Your task to perform on an android device: turn on notifications settings in the gmail app Image 0: 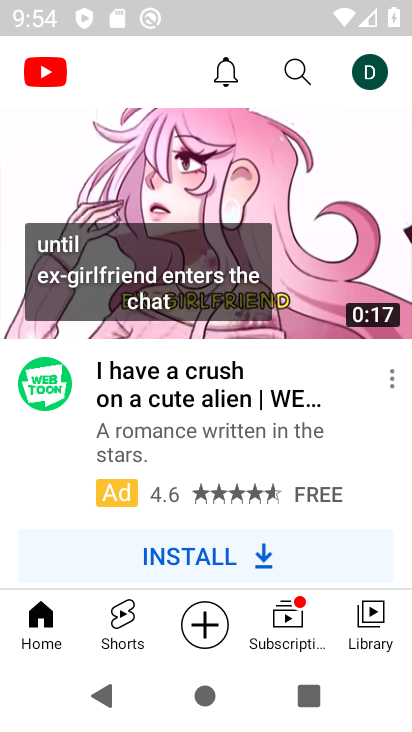
Step 0: press home button
Your task to perform on an android device: turn on notifications settings in the gmail app Image 1: 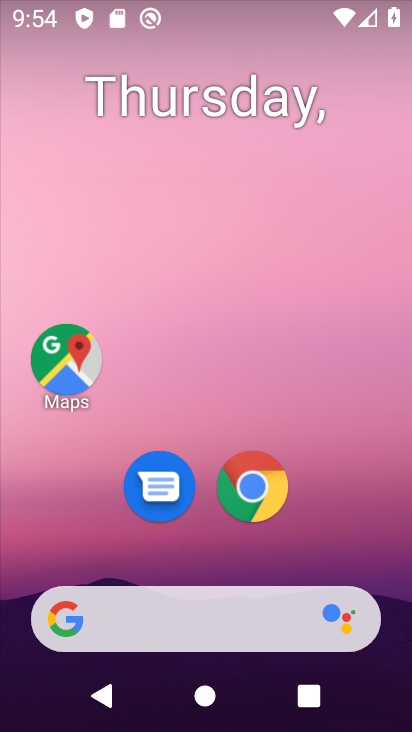
Step 1: drag from (182, 560) to (291, 59)
Your task to perform on an android device: turn on notifications settings in the gmail app Image 2: 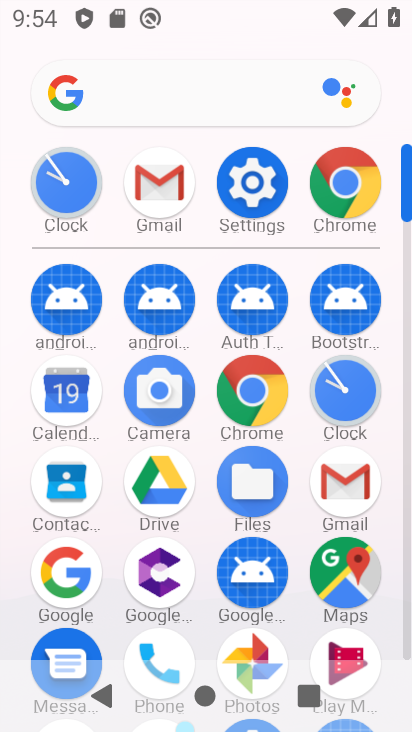
Step 2: click (151, 191)
Your task to perform on an android device: turn on notifications settings in the gmail app Image 3: 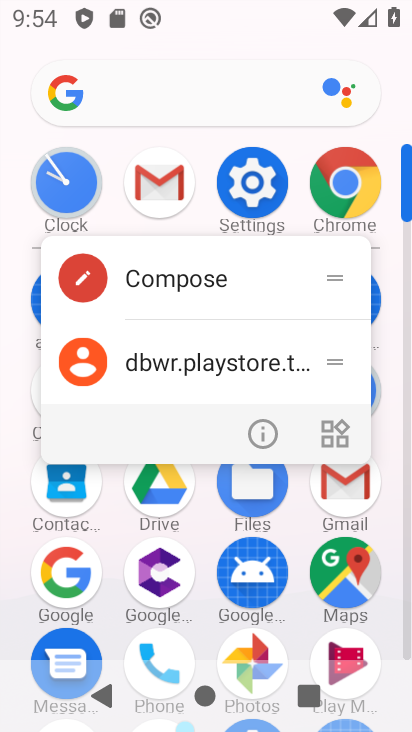
Step 3: click (265, 437)
Your task to perform on an android device: turn on notifications settings in the gmail app Image 4: 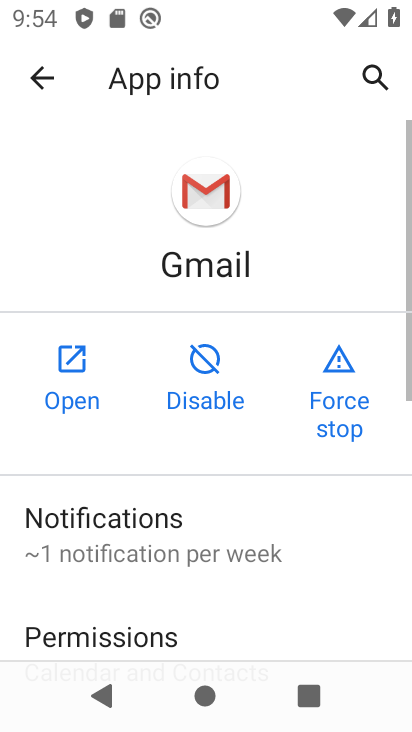
Step 4: click (140, 509)
Your task to perform on an android device: turn on notifications settings in the gmail app Image 5: 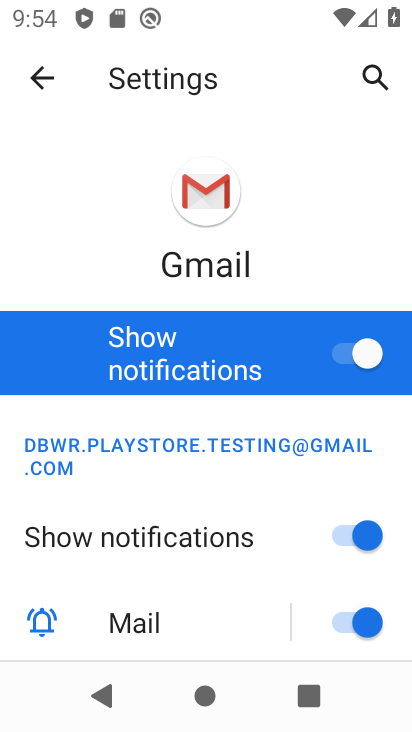
Step 5: task complete